Your task to perform on an android device: Open Yahoo.com Image 0: 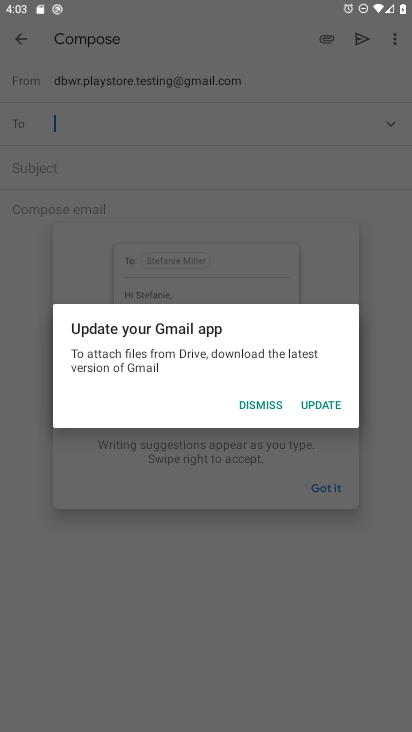
Step 0: press home button
Your task to perform on an android device: Open Yahoo.com Image 1: 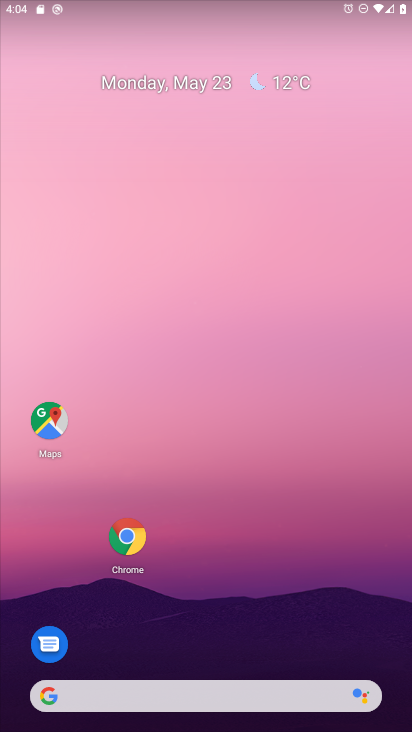
Step 1: drag from (308, 621) to (310, 111)
Your task to perform on an android device: Open Yahoo.com Image 2: 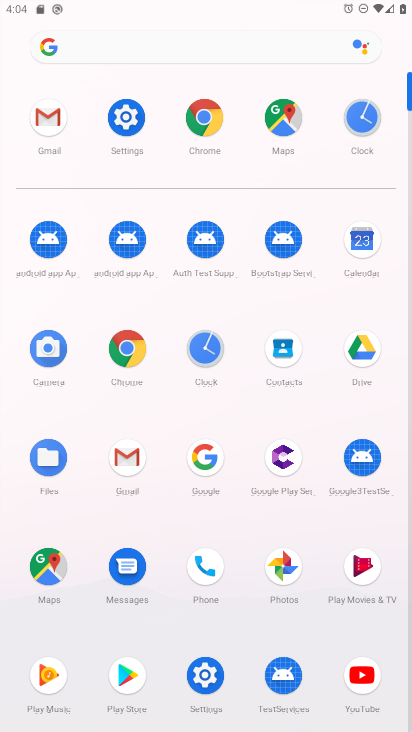
Step 2: click (137, 343)
Your task to perform on an android device: Open Yahoo.com Image 3: 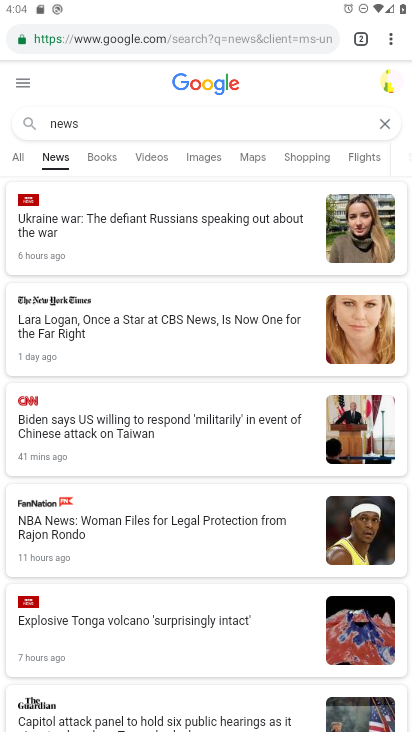
Step 3: click (105, 129)
Your task to perform on an android device: Open Yahoo.com Image 4: 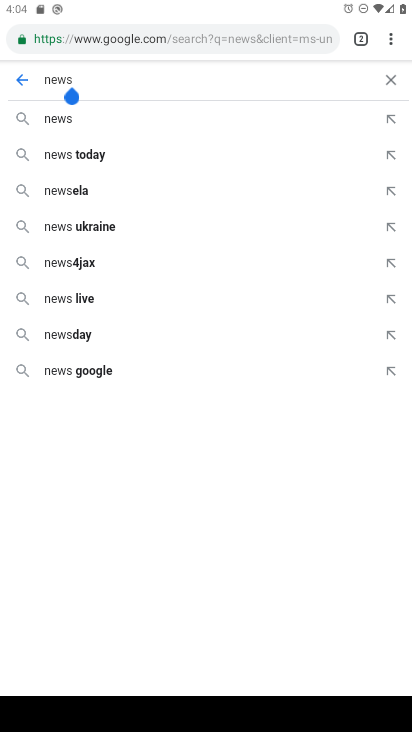
Step 4: click (390, 76)
Your task to perform on an android device: Open Yahoo.com Image 5: 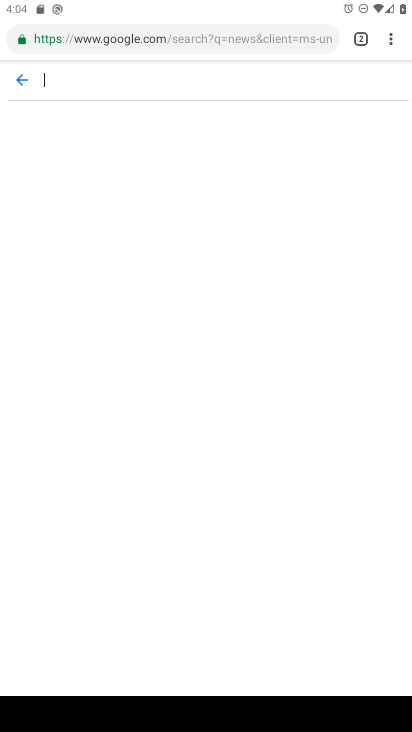
Step 5: type "yahoo.com"
Your task to perform on an android device: Open Yahoo.com Image 6: 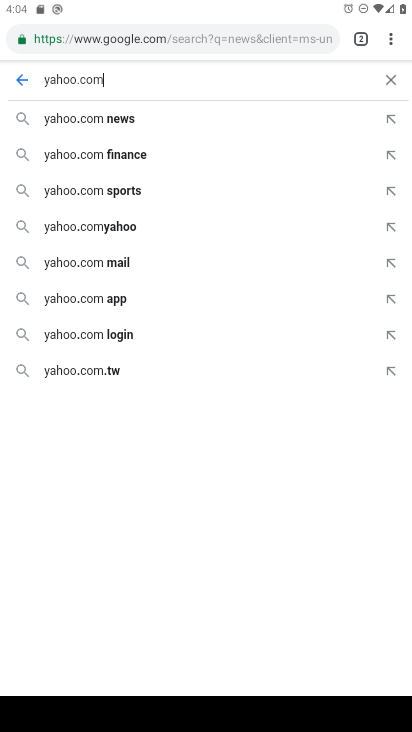
Step 6: press enter
Your task to perform on an android device: Open Yahoo.com Image 7: 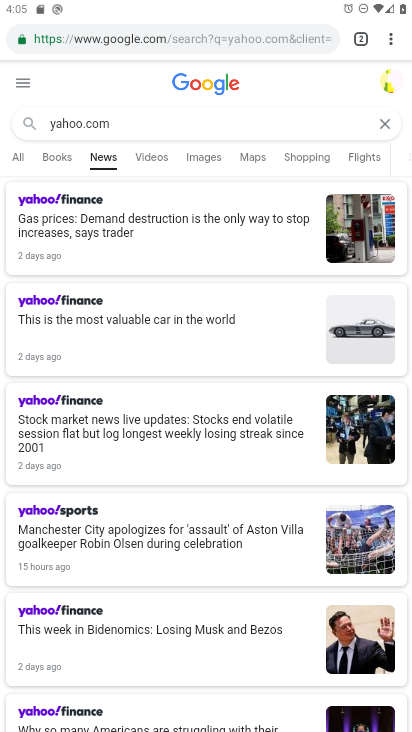
Step 7: click (10, 148)
Your task to perform on an android device: Open Yahoo.com Image 8: 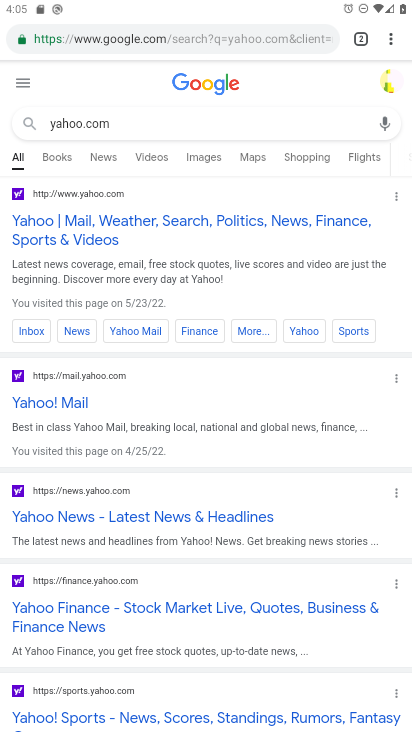
Step 8: click (55, 218)
Your task to perform on an android device: Open Yahoo.com Image 9: 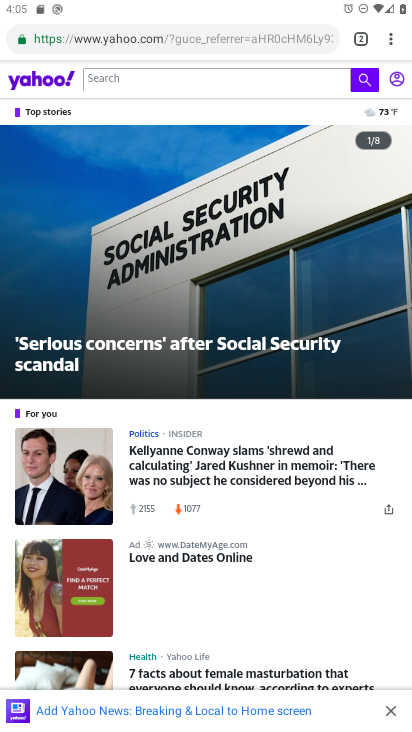
Step 9: task complete